Your task to perform on an android device: toggle sleep mode Image 0: 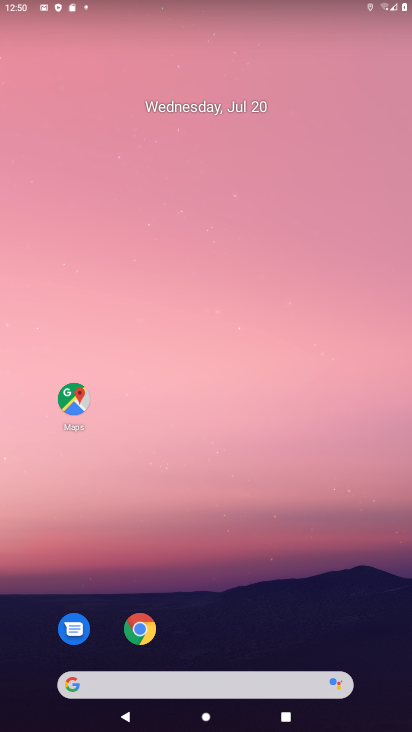
Step 0: drag from (174, 684) to (220, 159)
Your task to perform on an android device: toggle sleep mode Image 1: 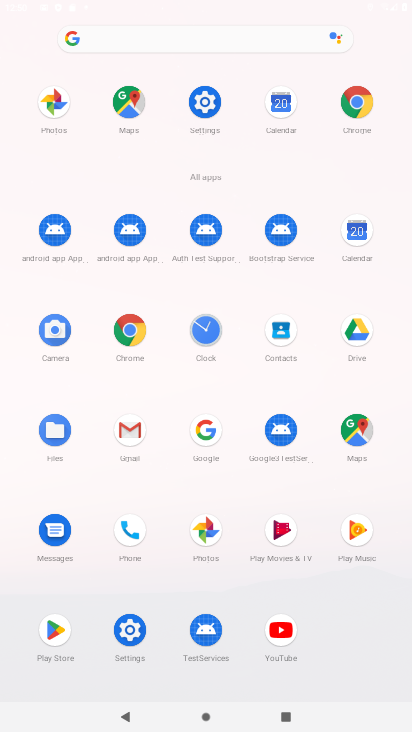
Step 1: click (202, 103)
Your task to perform on an android device: toggle sleep mode Image 2: 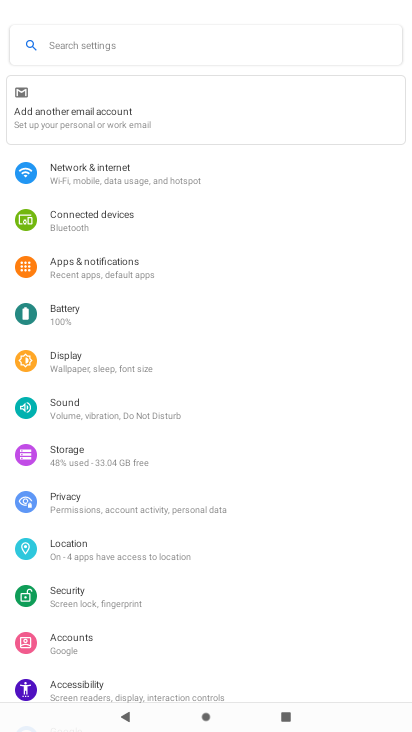
Step 2: click (113, 371)
Your task to perform on an android device: toggle sleep mode Image 3: 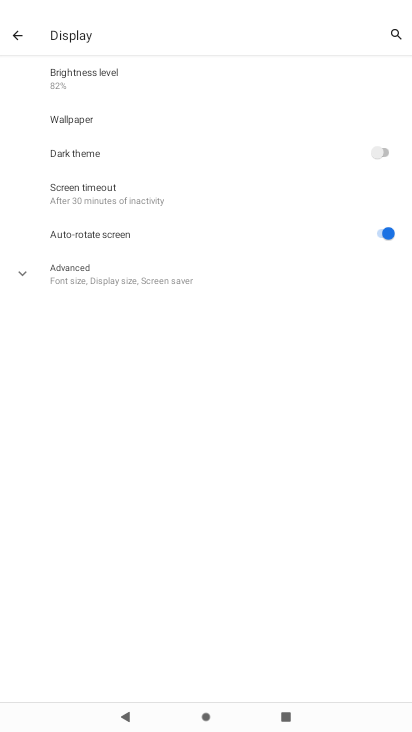
Step 3: task complete